Your task to perform on an android device: turn notification dots on Image 0: 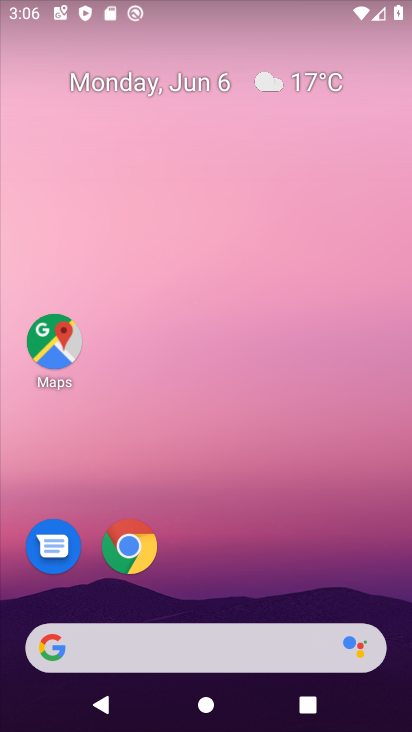
Step 0: drag from (309, 556) to (330, 135)
Your task to perform on an android device: turn notification dots on Image 1: 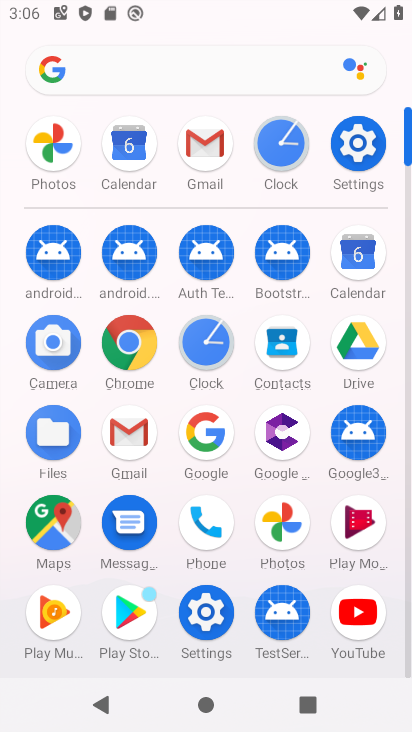
Step 1: click (356, 156)
Your task to perform on an android device: turn notification dots on Image 2: 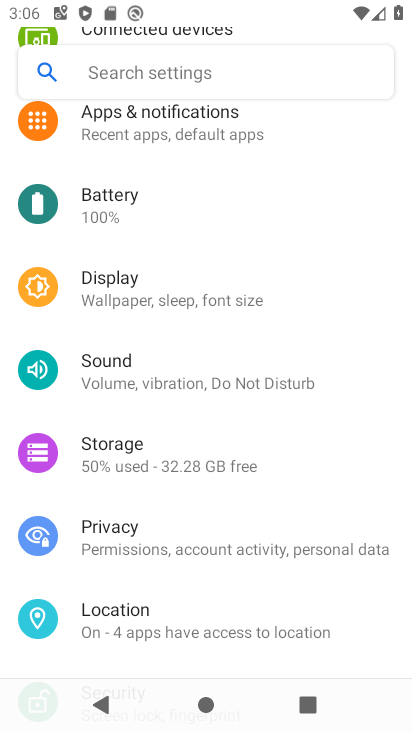
Step 2: click (254, 142)
Your task to perform on an android device: turn notification dots on Image 3: 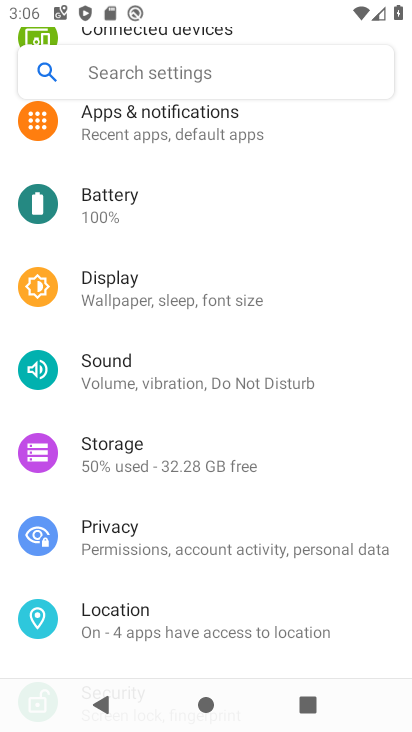
Step 3: task complete